Your task to perform on an android device: snooze an email in the gmail app Image 0: 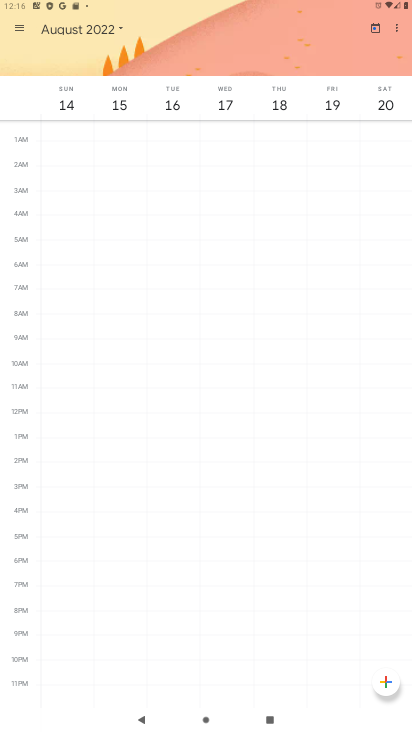
Step 0: press home button
Your task to perform on an android device: snooze an email in the gmail app Image 1: 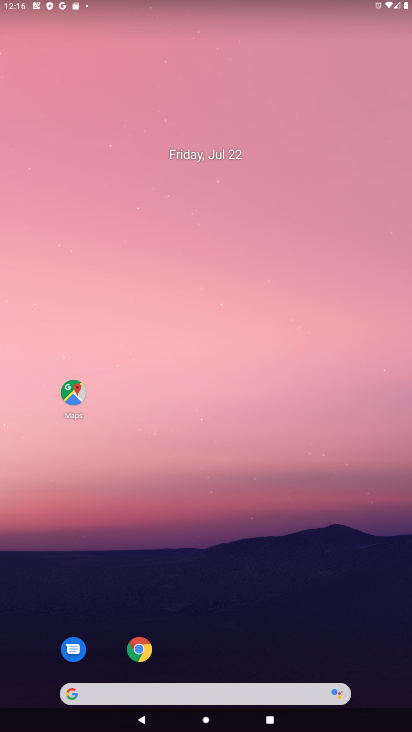
Step 1: drag from (313, 511) to (297, 22)
Your task to perform on an android device: snooze an email in the gmail app Image 2: 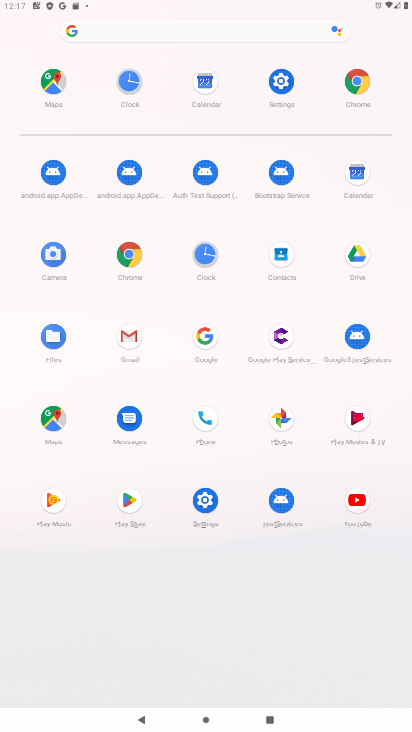
Step 2: click (131, 340)
Your task to perform on an android device: snooze an email in the gmail app Image 3: 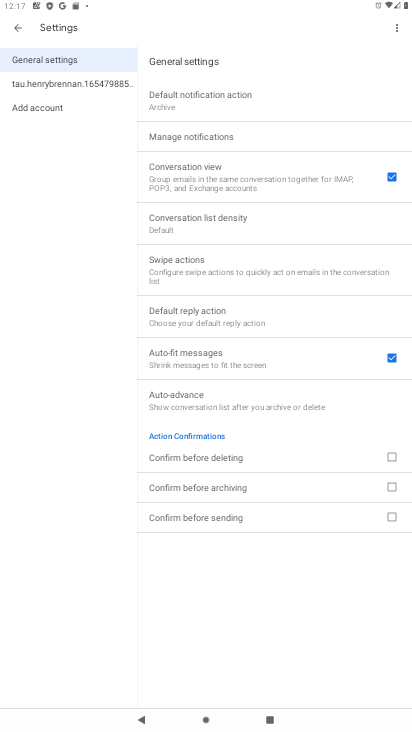
Step 3: click (16, 29)
Your task to perform on an android device: snooze an email in the gmail app Image 4: 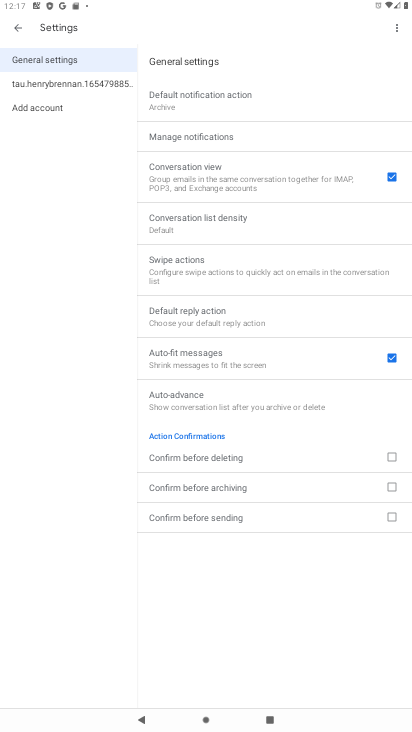
Step 4: click (19, 23)
Your task to perform on an android device: snooze an email in the gmail app Image 5: 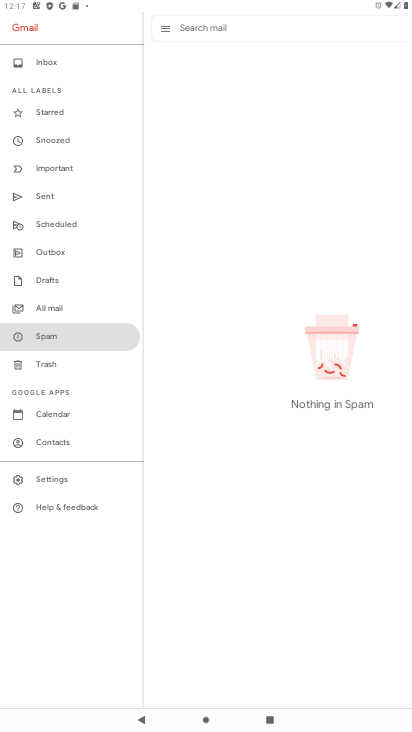
Step 5: click (56, 302)
Your task to perform on an android device: snooze an email in the gmail app Image 6: 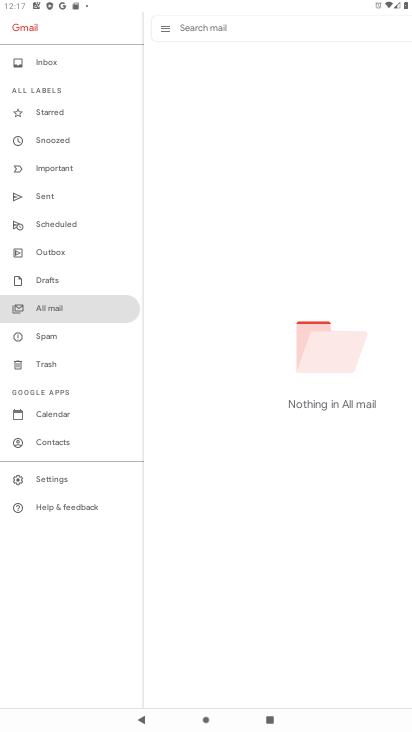
Step 6: task complete